Your task to perform on an android device: Search for "macbook pro" on amazon, select the first entry, and add it to the cart. Image 0: 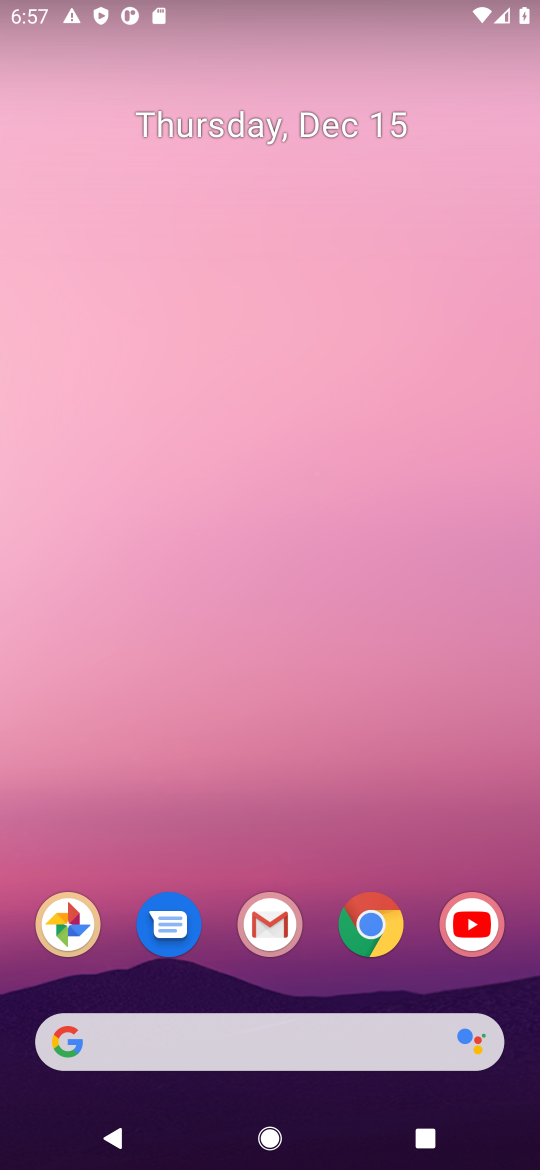
Step 0: click (351, 947)
Your task to perform on an android device: Search for "macbook pro" on amazon, select the first entry, and add it to the cart. Image 1: 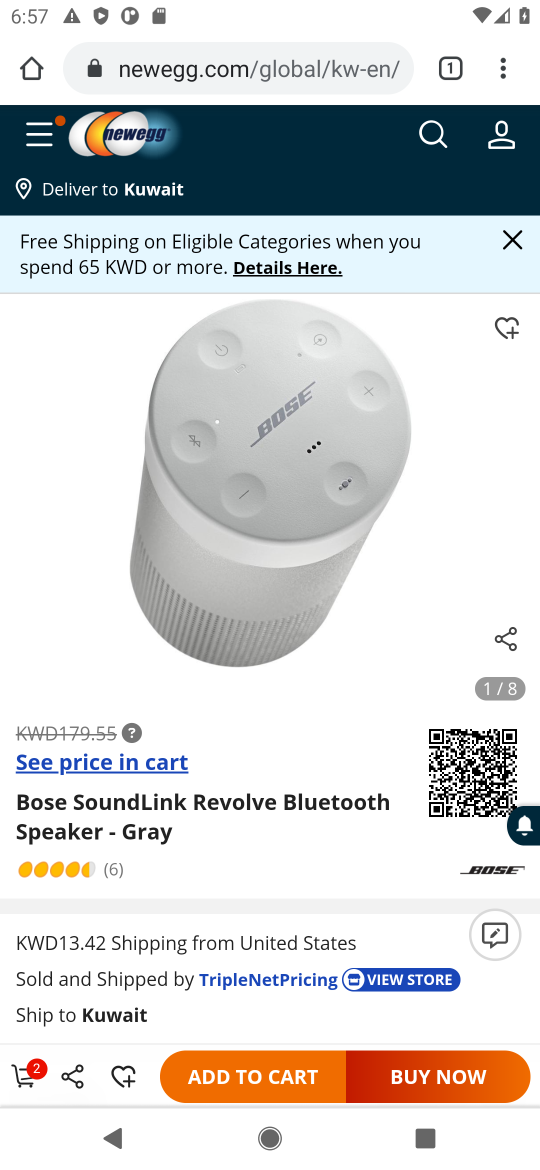
Step 1: click (296, 53)
Your task to perform on an android device: Search for "macbook pro" on amazon, select the first entry, and add it to the cart. Image 2: 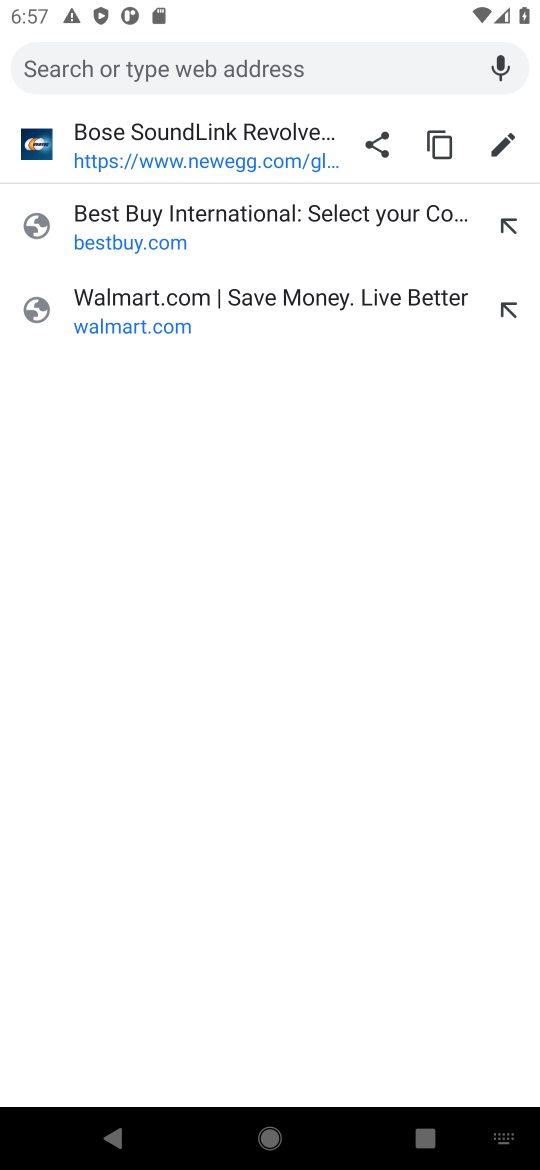
Step 2: type "amazon"
Your task to perform on an android device: Search for "macbook pro" on amazon, select the first entry, and add it to the cart. Image 3: 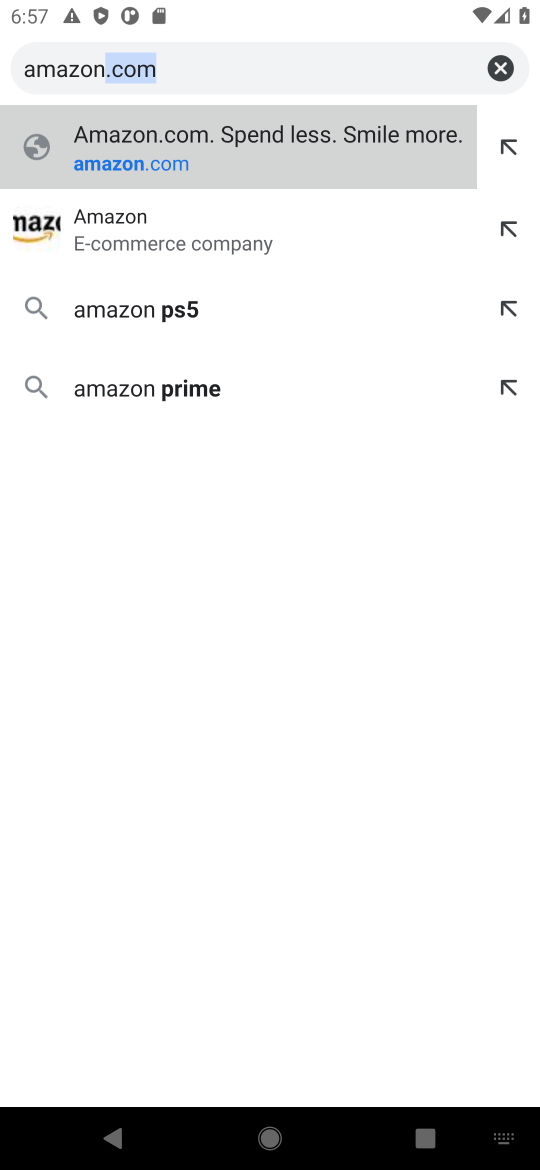
Step 3: click (158, 163)
Your task to perform on an android device: Search for "macbook pro" on amazon, select the first entry, and add it to the cart. Image 4: 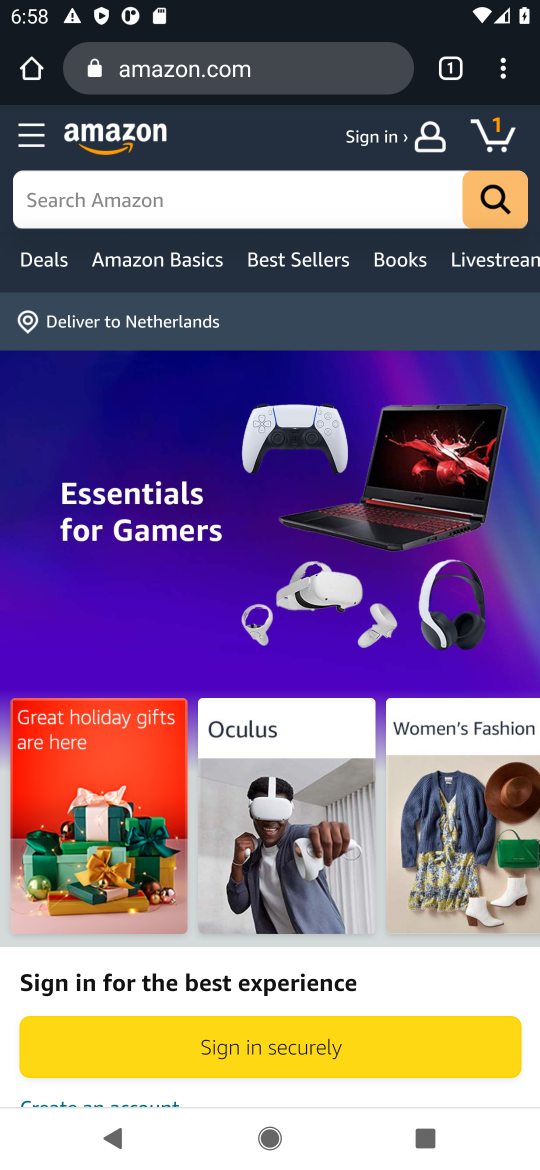
Step 4: click (264, 208)
Your task to perform on an android device: Search for "macbook pro" on amazon, select the first entry, and add it to the cart. Image 5: 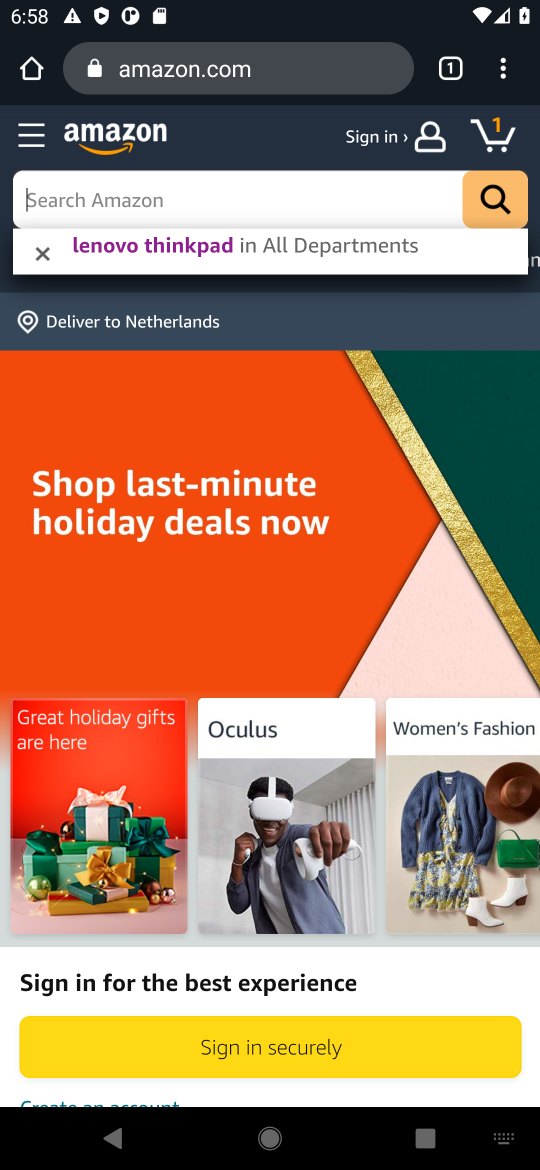
Step 5: type "macbook pro"
Your task to perform on an android device: Search for "macbook pro" on amazon, select the first entry, and add it to the cart. Image 6: 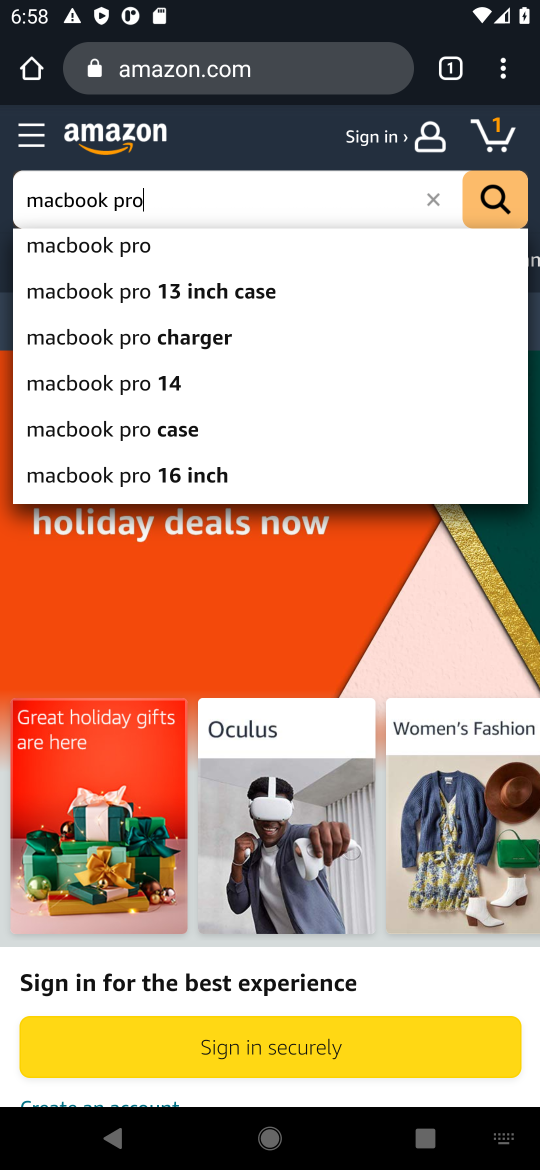
Step 6: click (497, 186)
Your task to perform on an android device: Search for "macbook pro" on amazon, select the first entry, and add it to the cart. Image 7: 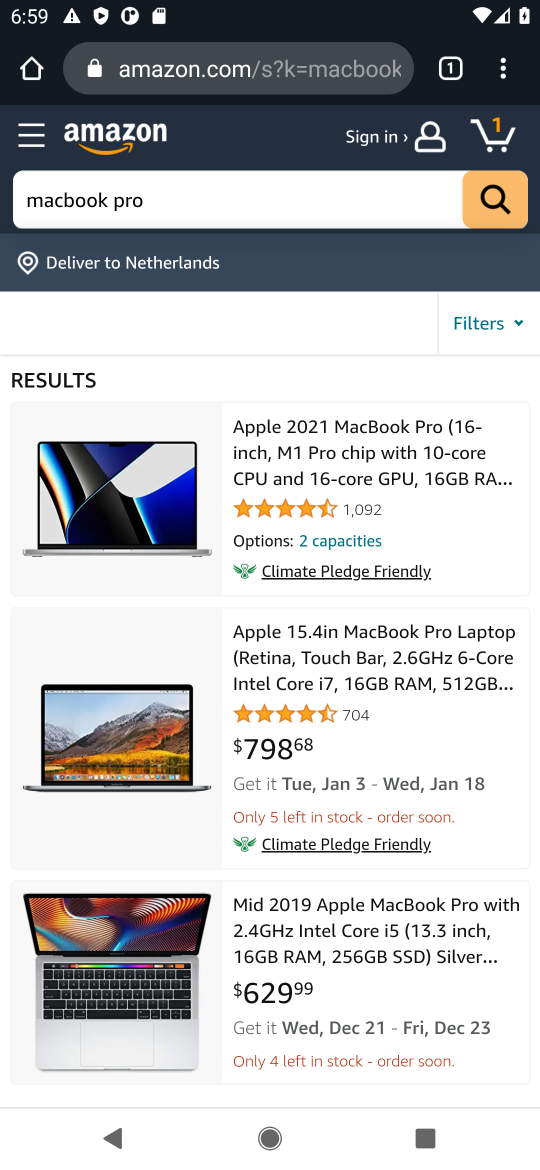
Step 7: click (341, 654)
Your task to perform on an android device: Search for "macbook pro" on amazon, select the first entry, and add it to the cart. Image 8: 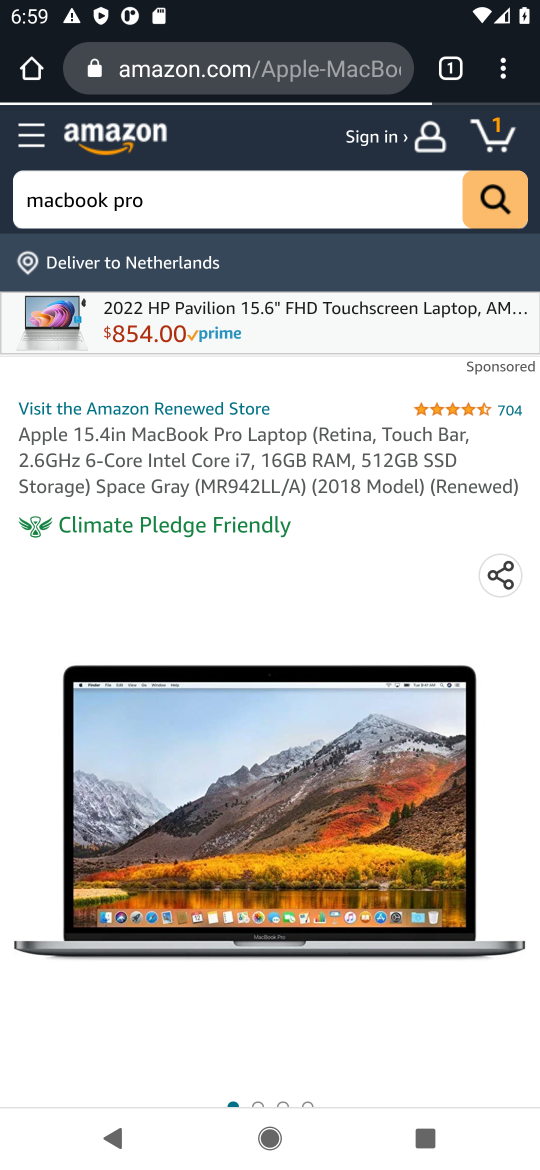
Step 8: drag from (218, 935) to (193, 392)
Your task to perform on an android device: Search for "macbook pro" on amazon, select the first entry, and add it to the cart. Image 9: 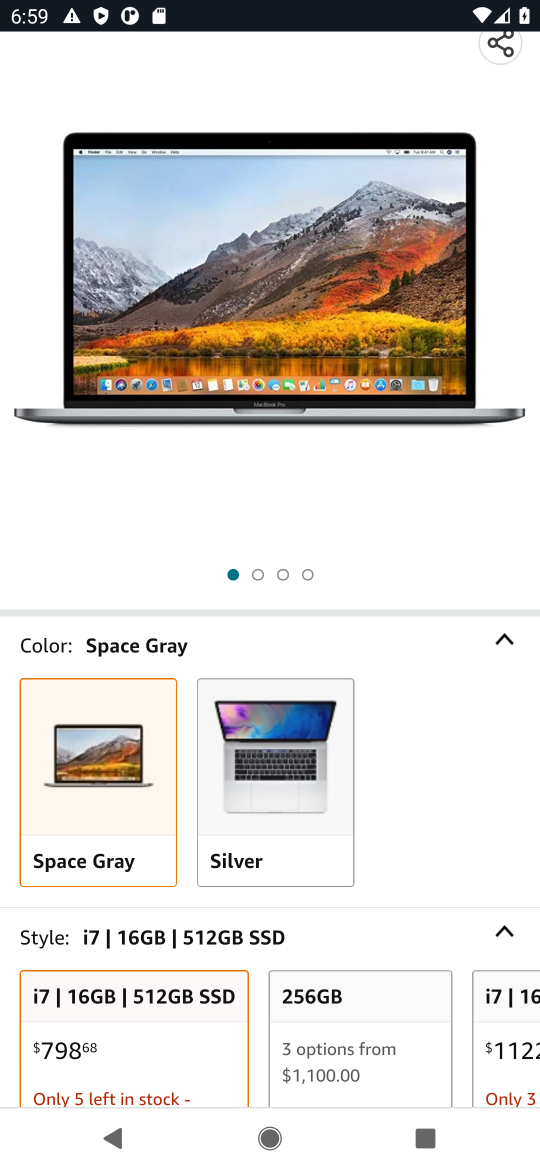
Step 9: drag from (249, 957) to (258, 374)
Your task to perform on an android device: Search for "macbook pro" on amazon, select the first entry, and add it to the cart. Image 10: 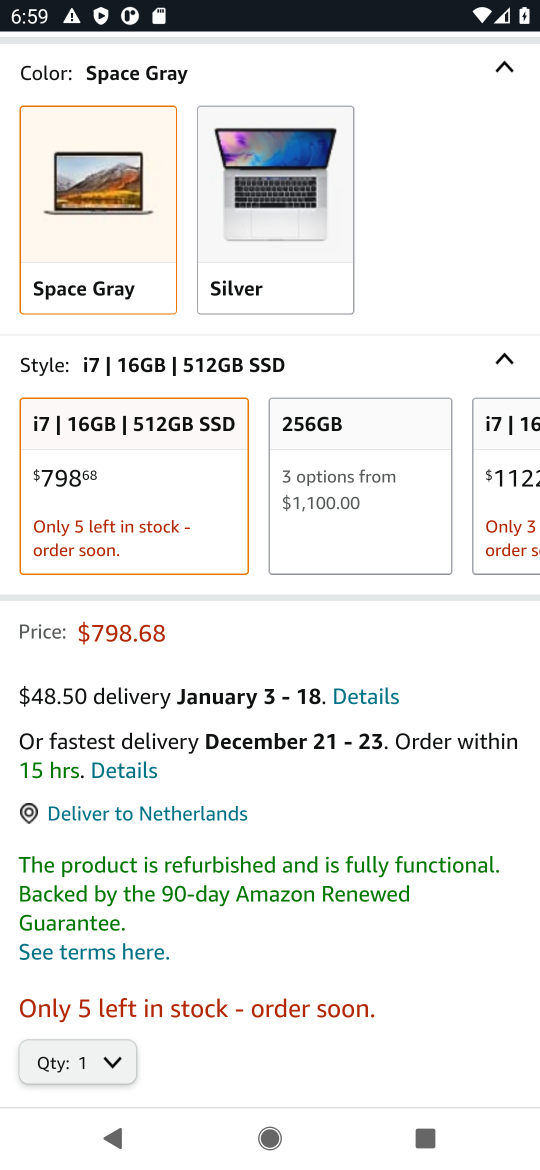
Step 10: drag from (245, 1060) to (199, 485)
Your task to perform on an android device: Search for "macbook pro" on amazon, select the first entry, and add it to the cart. Image 11: 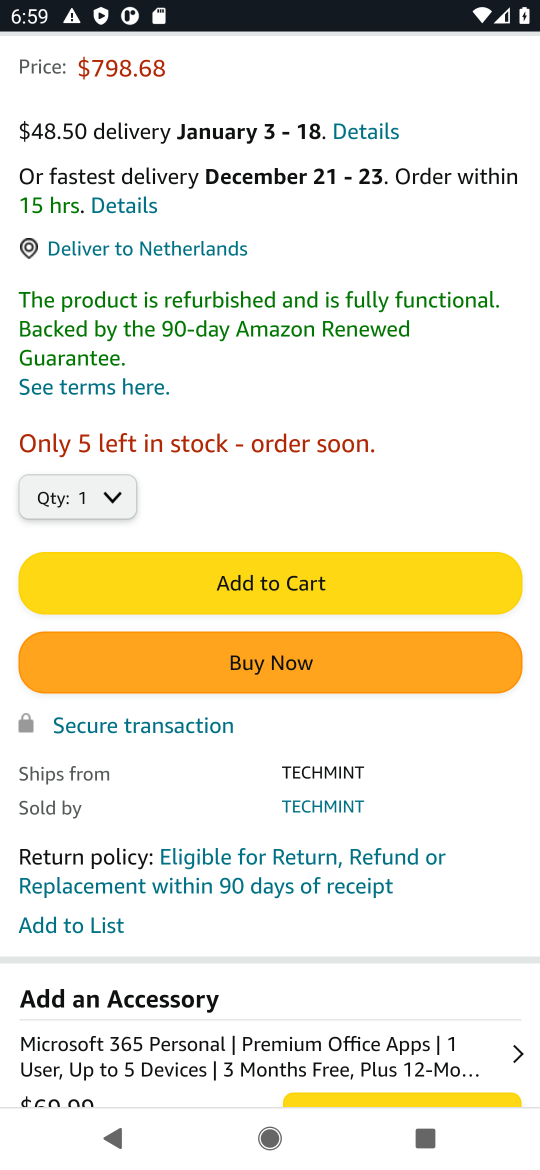
Step 11: click (223, 583)
Your task to perform on an android device: Search for "macbook pro" on amazon, select the first entry, and add it to the cart. Image 12: 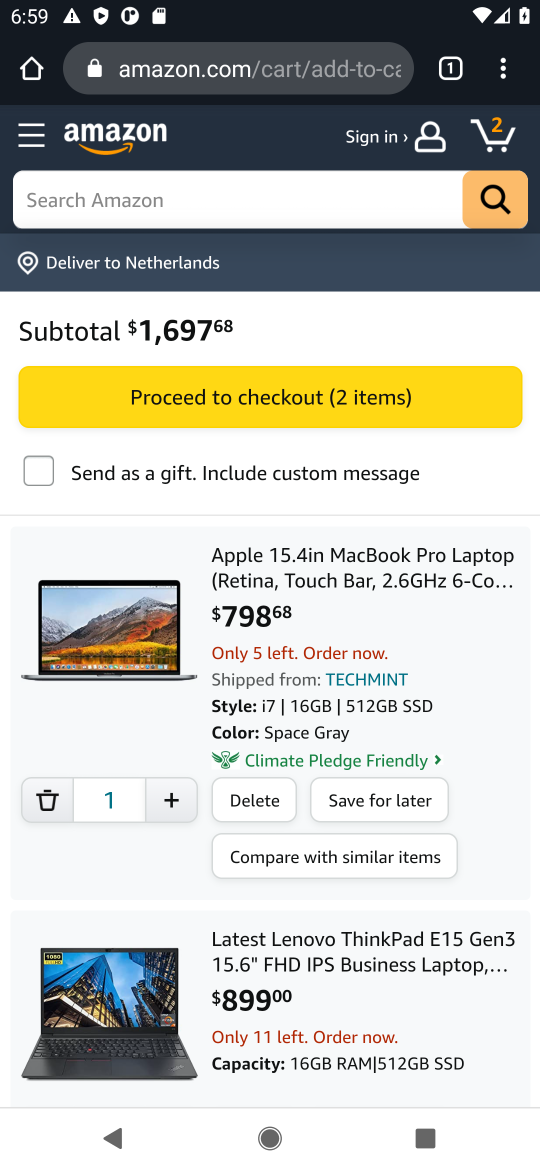
Step 12: task complete